Your task to perform on an android device: open app "Roku - Official Remote Control" (install if not already installed) Image 0: 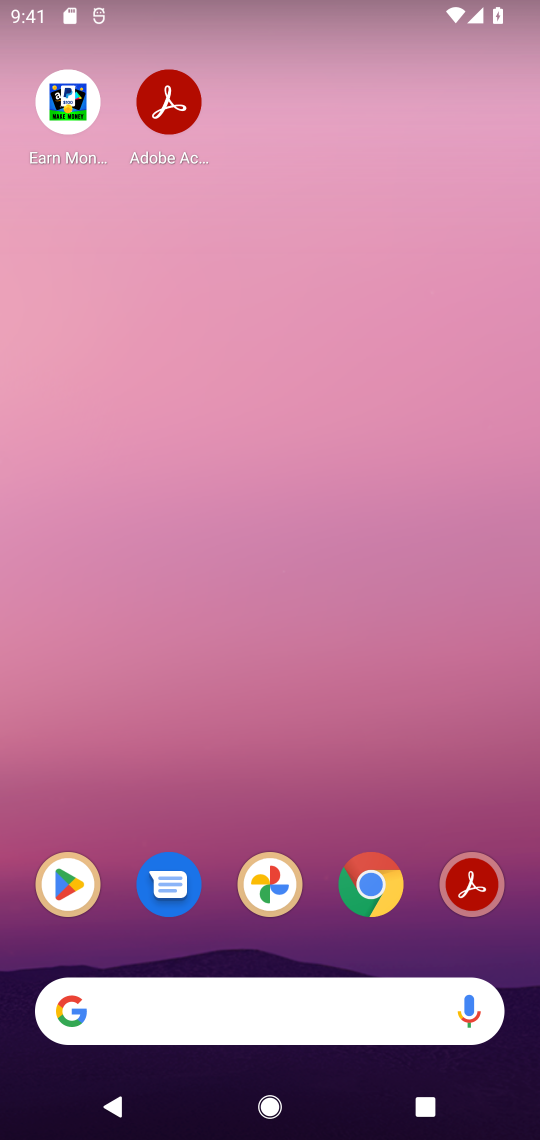
Step 0: drag from (303, 931) to (282, 3)
Your task to perform on an android device: open app "Roku - Official Remote Control" (install if not already installed) Image 1: 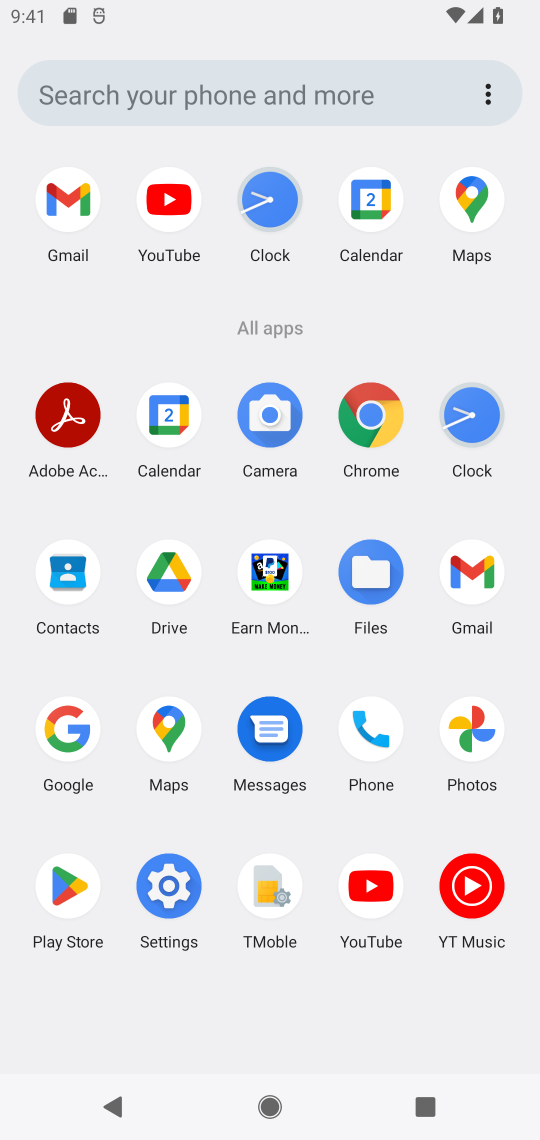
Step 1: click (81, 917)
Your task to perform on an android device: open app "Roku - Official Remote Control" (install if not already installed) Image 2: 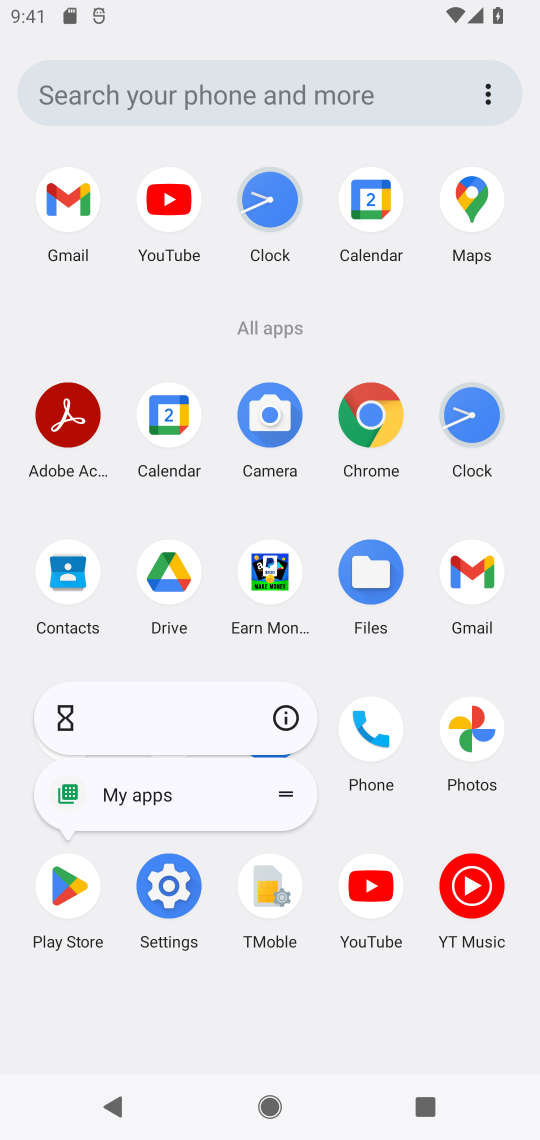
Step 2: click (82, 895)
Your task to perform on an android device: open app "Roku - Official Remote Control" (install if not already installed) Image 3: 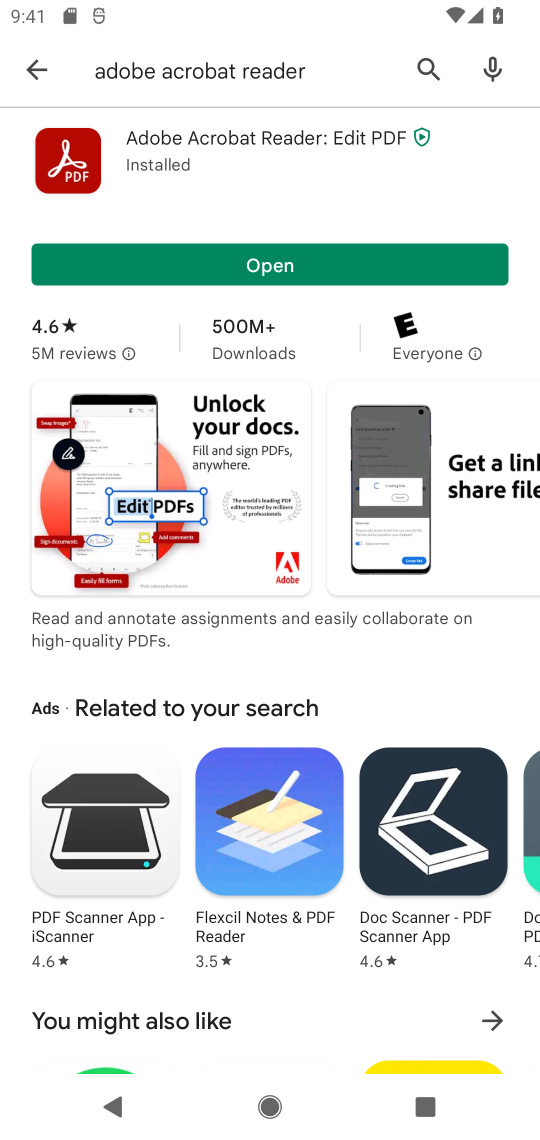
Step 3: click (191, 72)
Your task to perform on an android device: open app "Roku - Official Remote Control" (install if not already installed) Image 4: 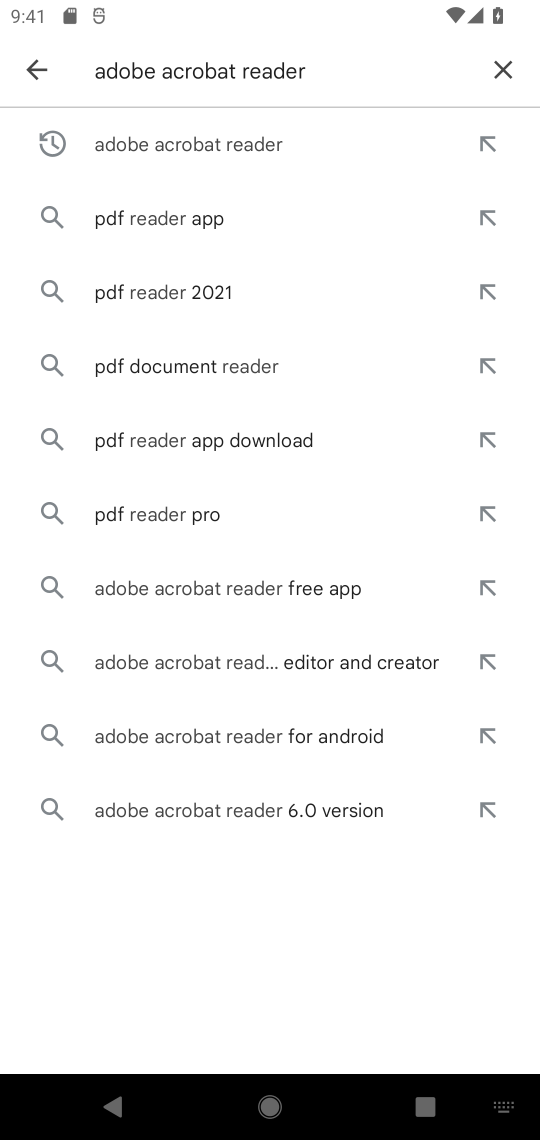
Step 4: click (507, 62)
Your task to perform on an android device: open app "Roku - Official Remote Control" (install if not already installed) Image 5: 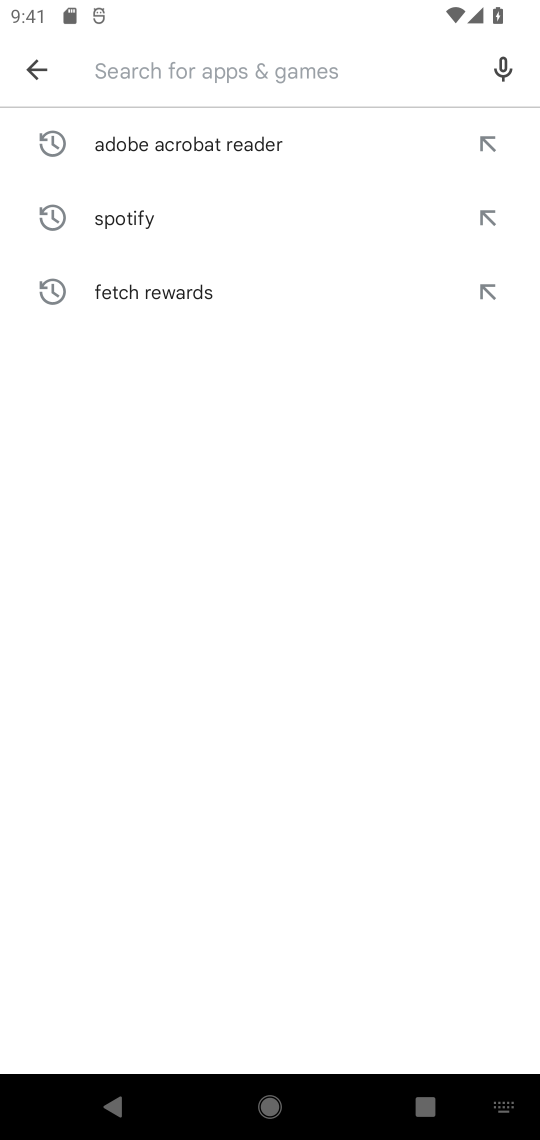
Step 5: type "Roku"
Your task to perform on an android device: open app "Roku - Official Remote Control" (install if not already installed) Image 6: 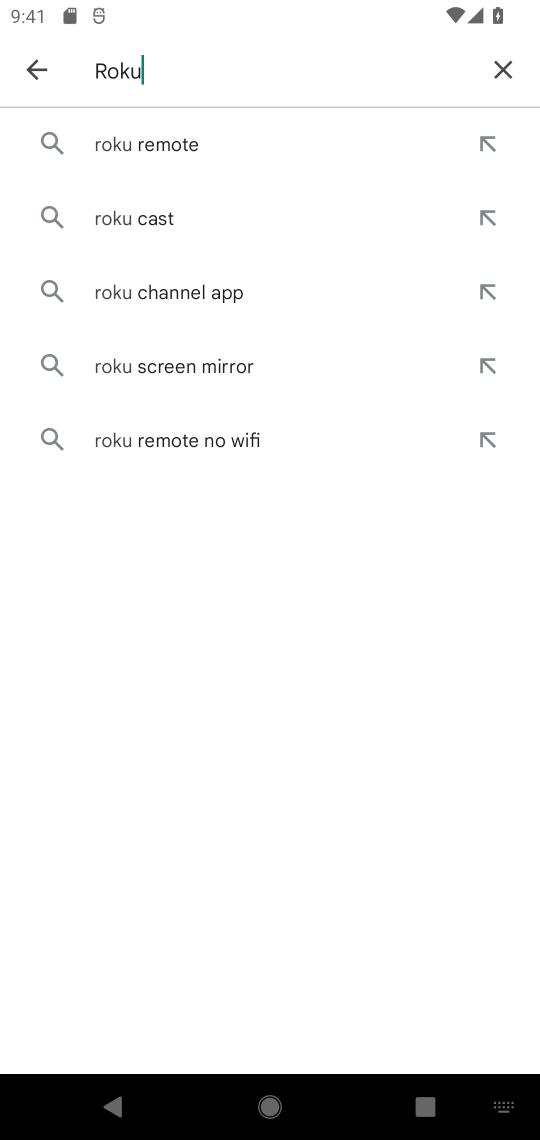
Step 6: click (126, 129)
Your task to perform on an android device: open app "Roku - Official Remote Control" (install if not already installed) Image 7: 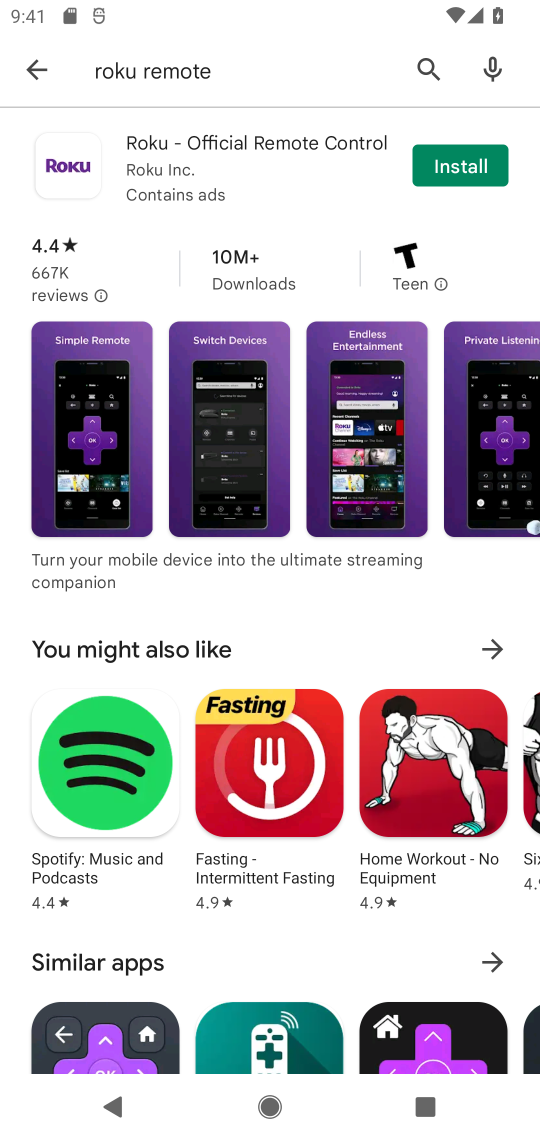
Step 7: click (457, 165)
Your task to perform on an android device: open app "Roku - Official Remote Control" (install if not already installed) Image 8: 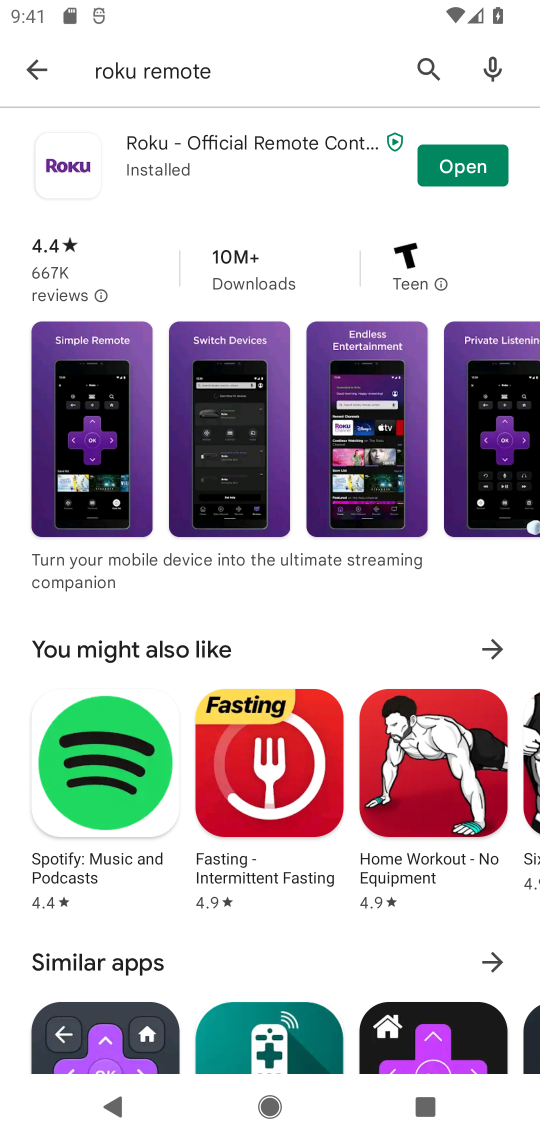
Step 8: click (477, 165)
Your task to perform on an android device: open app "Roku - Official Remote Control" (install if not already installed) Image 9: 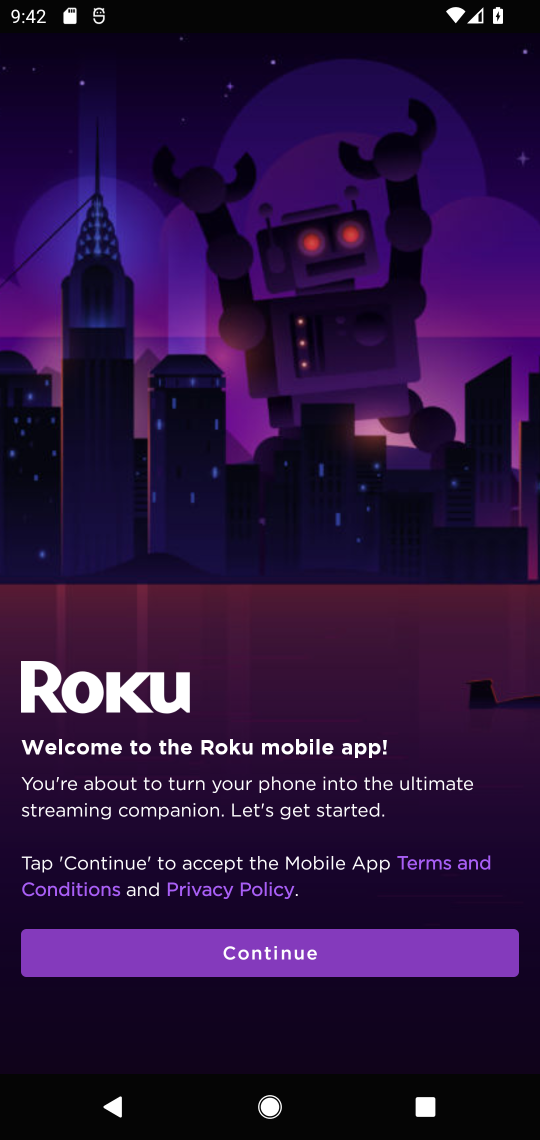
Step 9: click (314, 970)
Your task to perform on an android device: open app "Roku - Official Remote Control" (install if not already installed) Image 10: 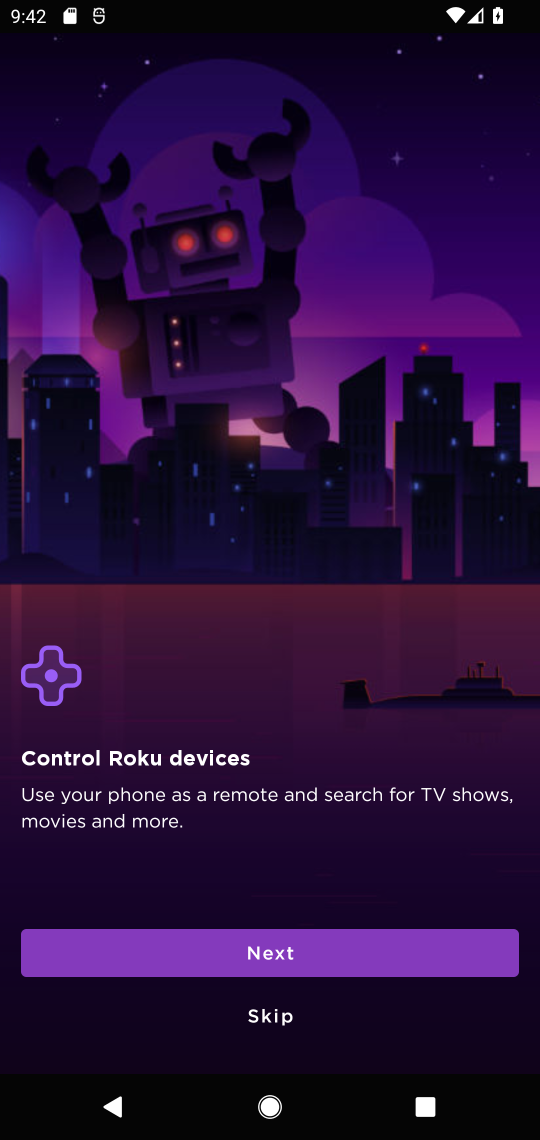
Step 10: click (259, 1017)
Your task to perform on an android device: open app "Roku - Official Remote Control" (install if not already installed) Image 11: 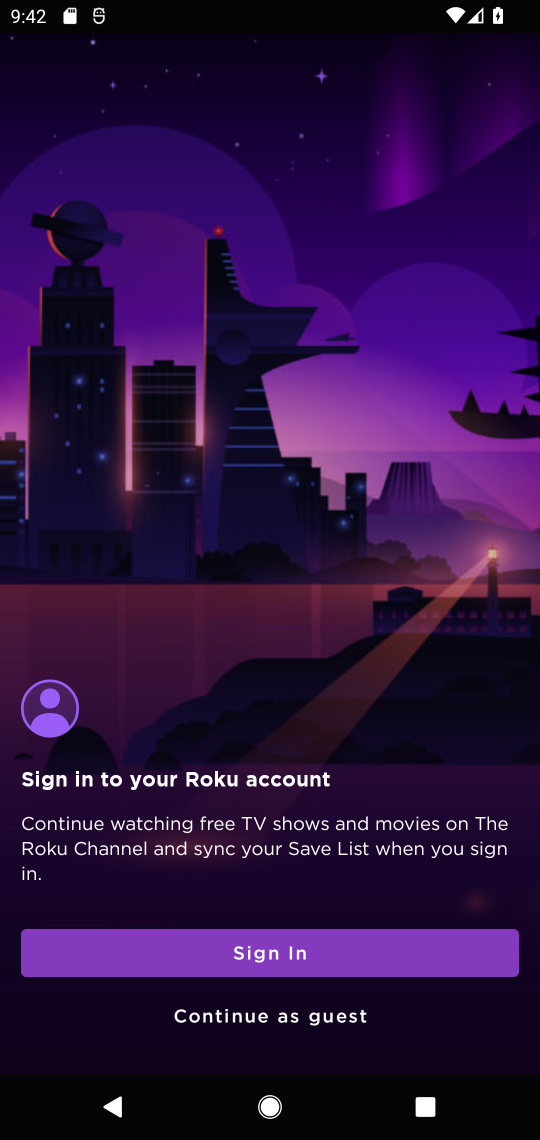
Step 11: click (247, 1019)
Your task to perform on an android device: open app "Roku - Official Remote Control" (install if not already installed) Image 12: 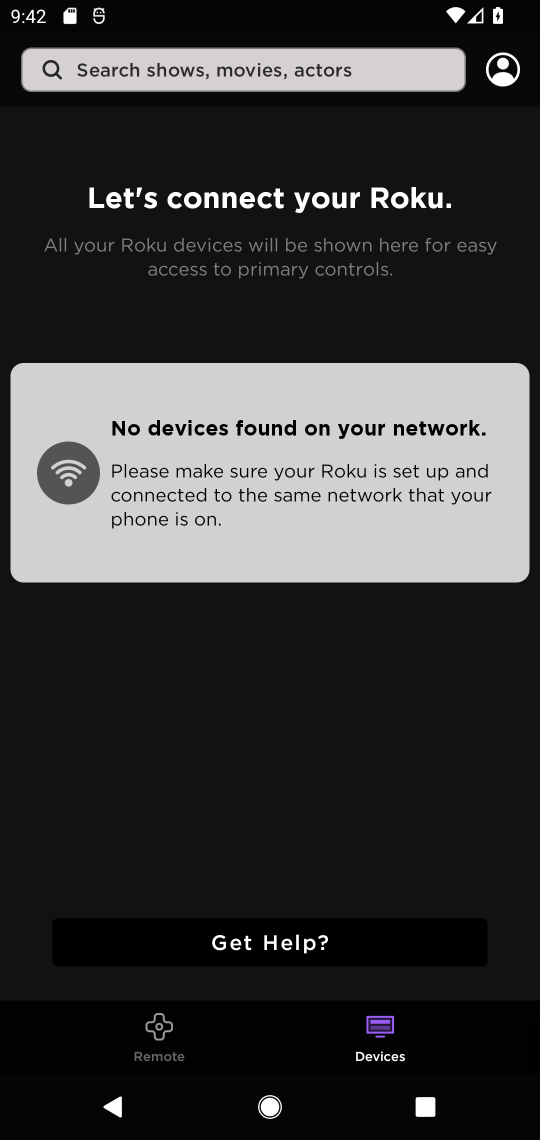
Step 12: task complete